Your task to perform on an android device: Go to Google Image 0: 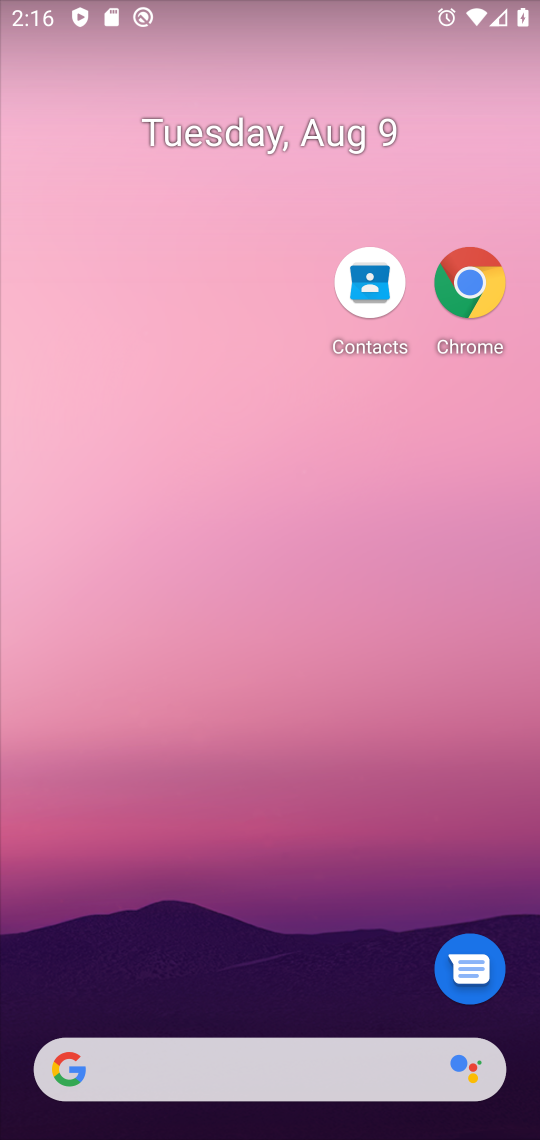
Step 0: drag from (293, 927) to (412, 345)
Your task to perform on an android device: Go to Google Image 1: 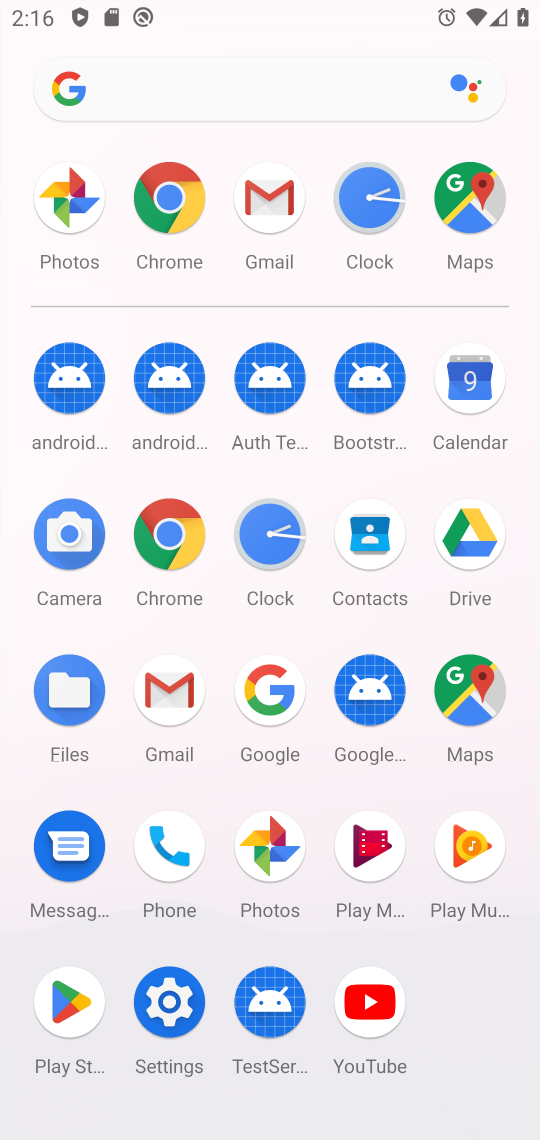
Step 1: click (266, 671)
Your task to perform on an android device: Go to Google Image 2: 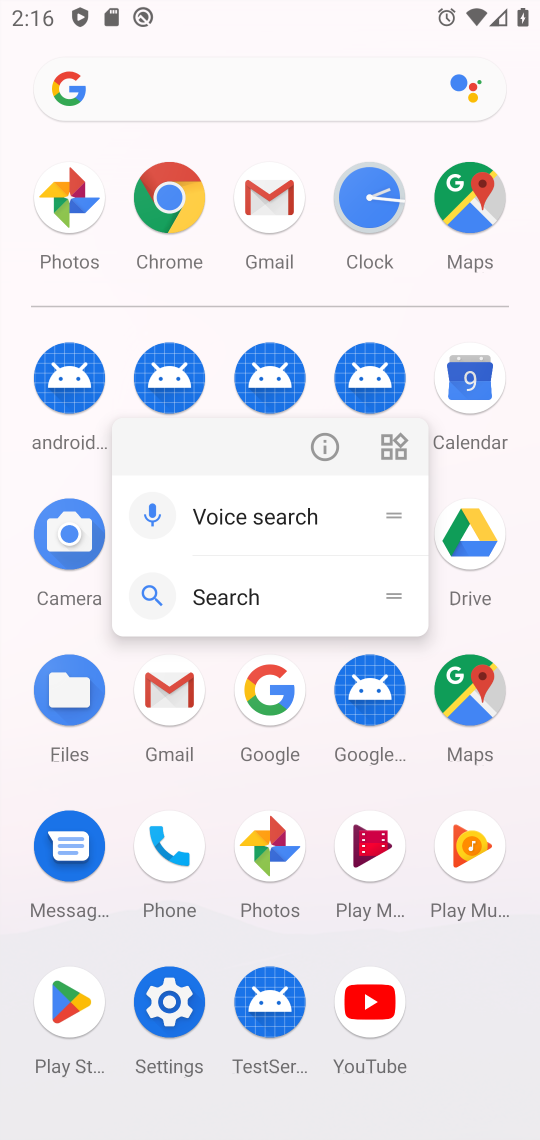
Step 2: click (341, 450)
Your task to perform on an android device: Go to Google Image 3: 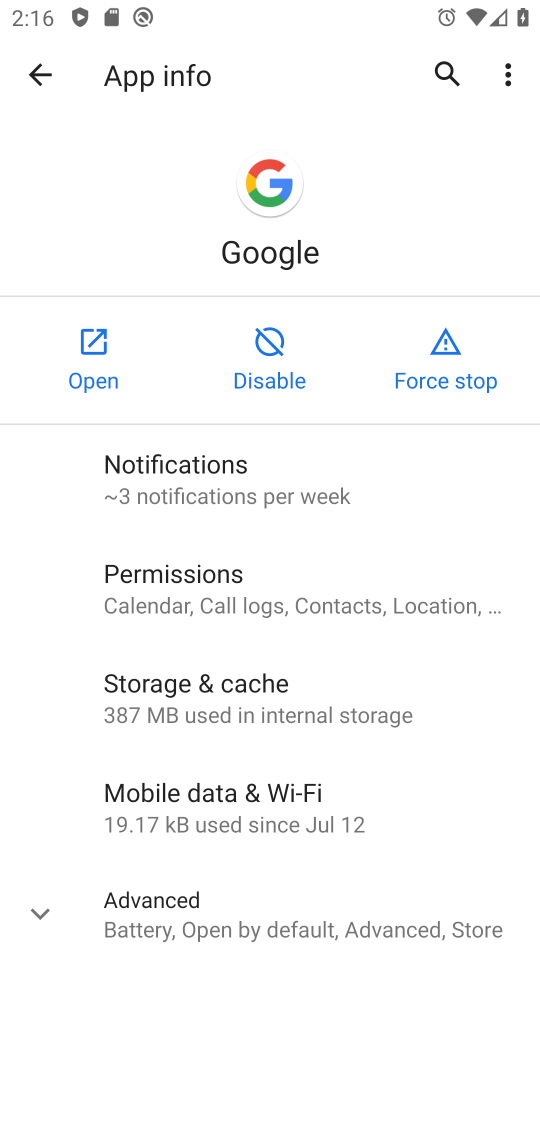
Step 3: click (109, 328)
Your task to perform on an android device: Go to Google Image 4: 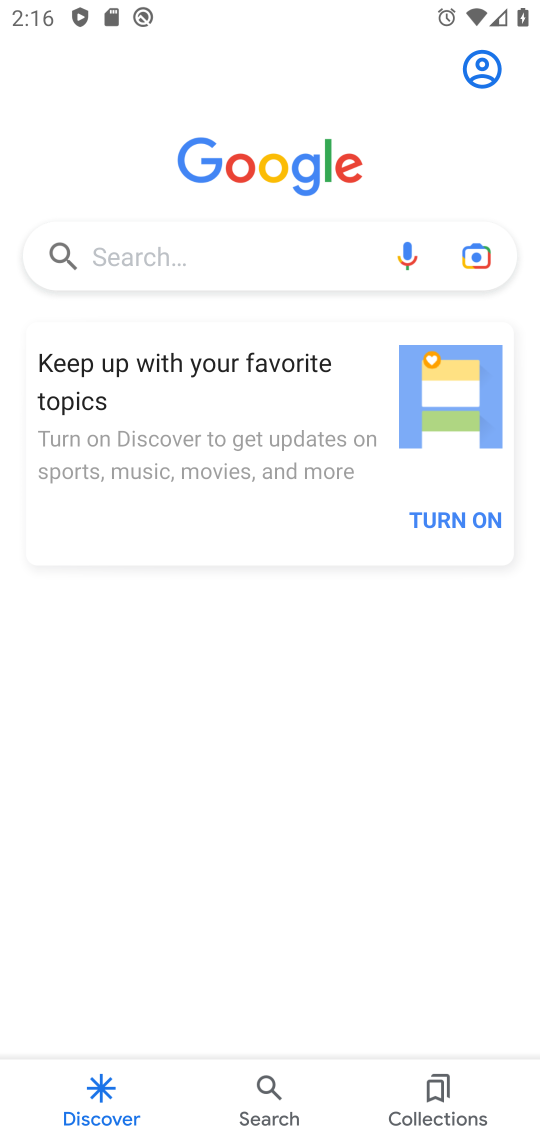
Step 4: task complete